Your task to perform on an android device: Search for sushi restaurants on Maps Image 0: 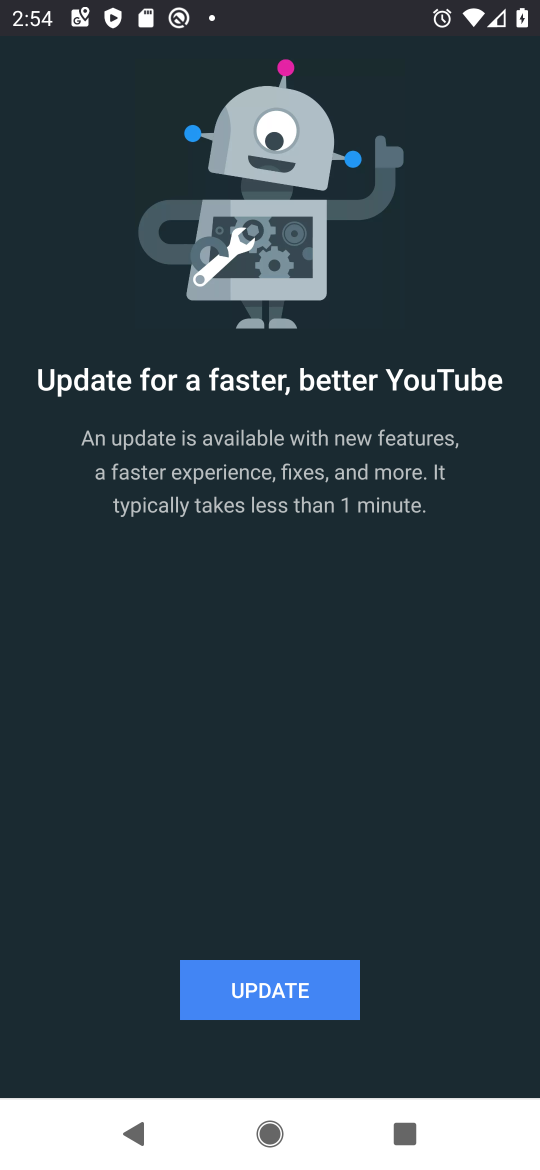
Step 0: press back button
Your task to perform on an android device: Search for sushi restaurants on Maps Image 1: 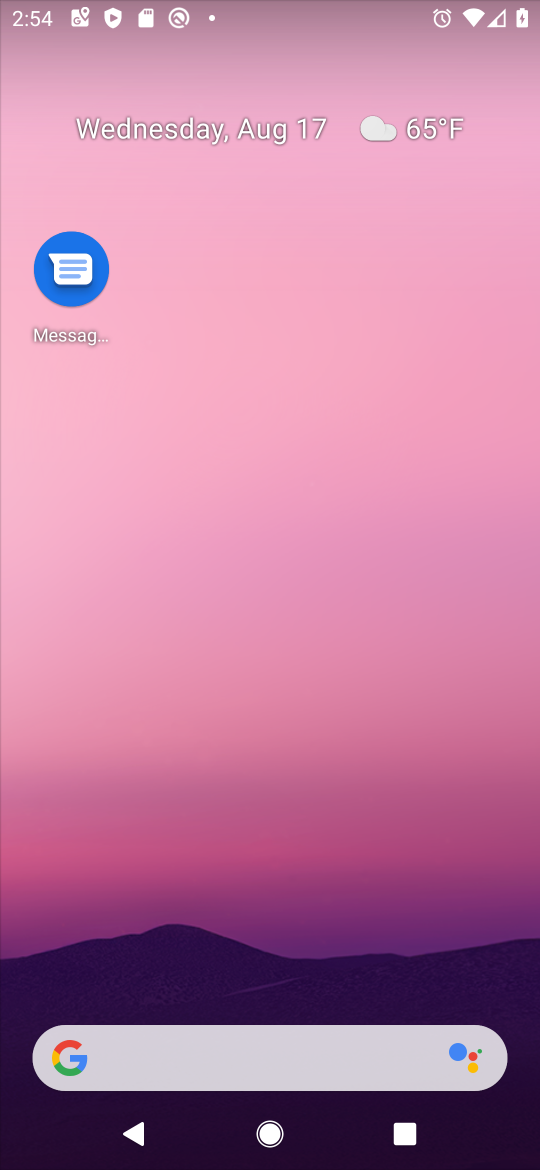
Step 1: drag from (254, 1002) to (193, 43)
Your task to perform on an android device: Search for sushi restaurants on Maps Image 2: 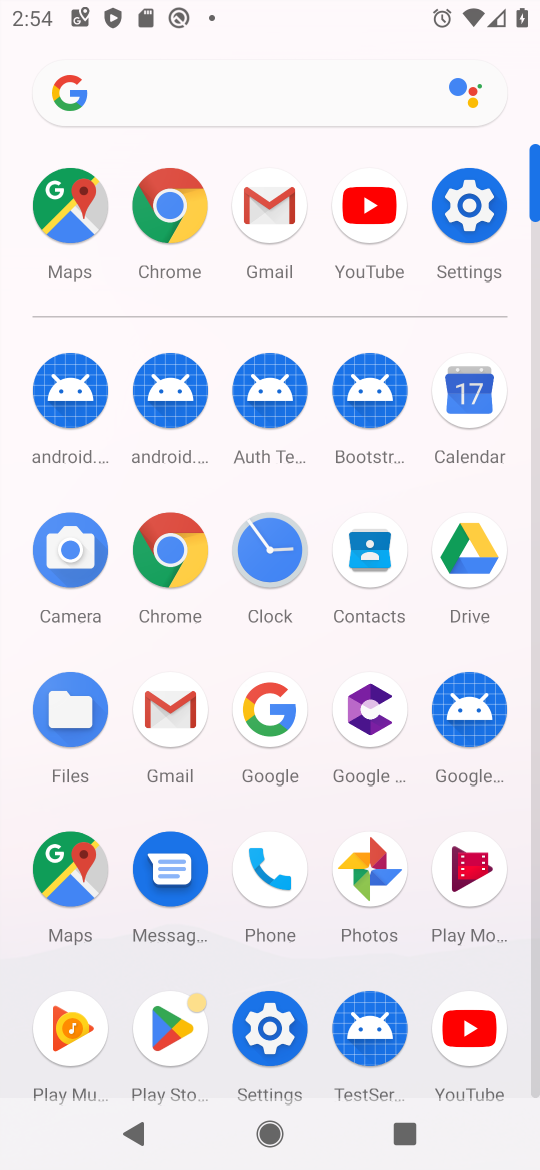
Step 2: click (41, 846)
Your task to perform on an android device: Search for sushi restaurants on Maps Image 3: 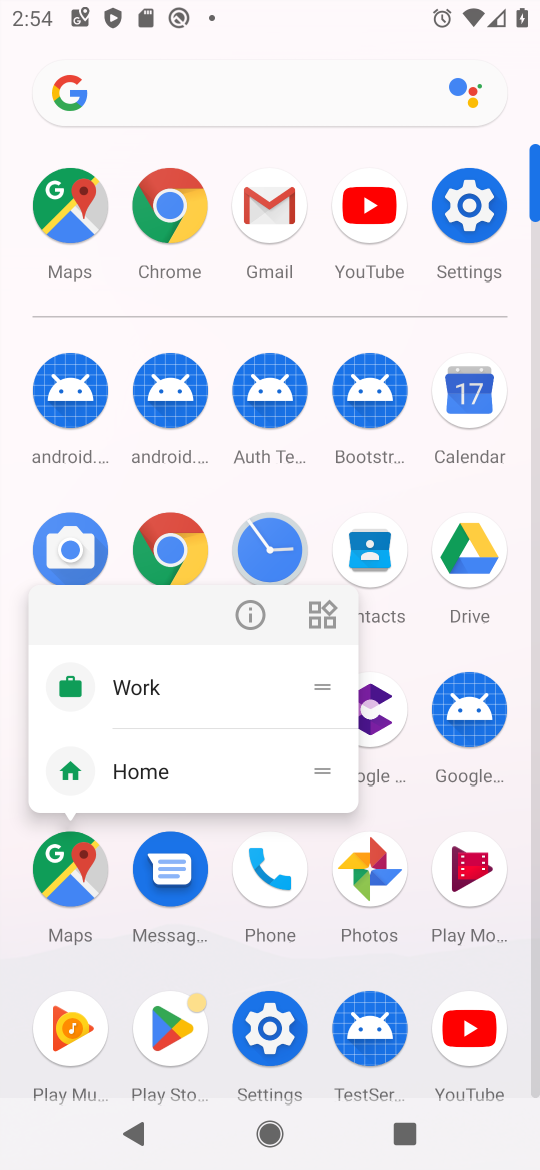
Step 3: click (81, 886)
Your task to perform on an android device: Search for sushi restaurants on Maps Image 4: 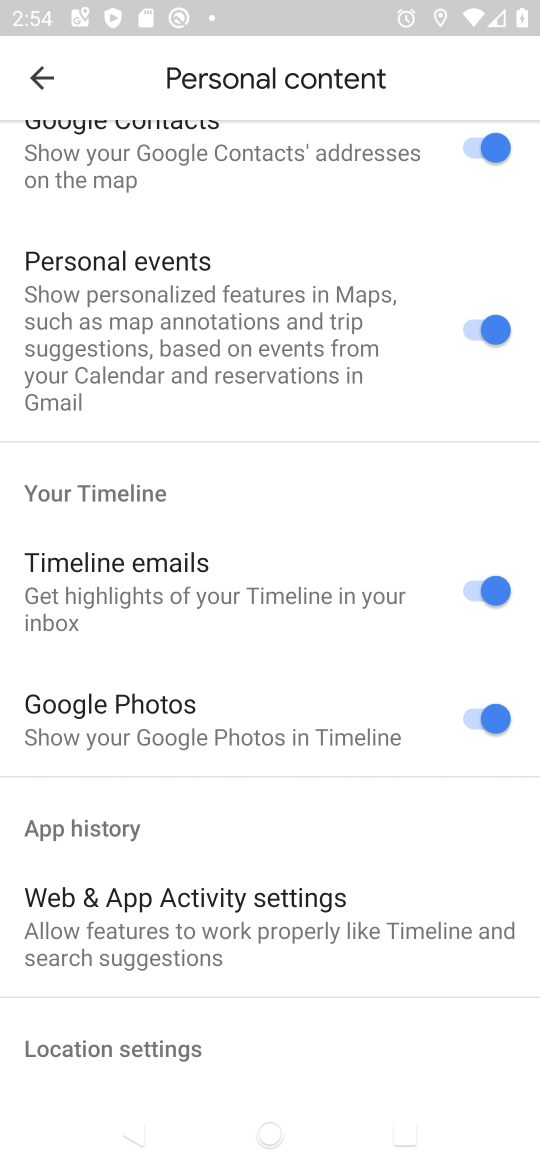
Step 4: click (35, 87)
Your task to perform on an android device: Search for sushi restaurants on Maps Image 5: 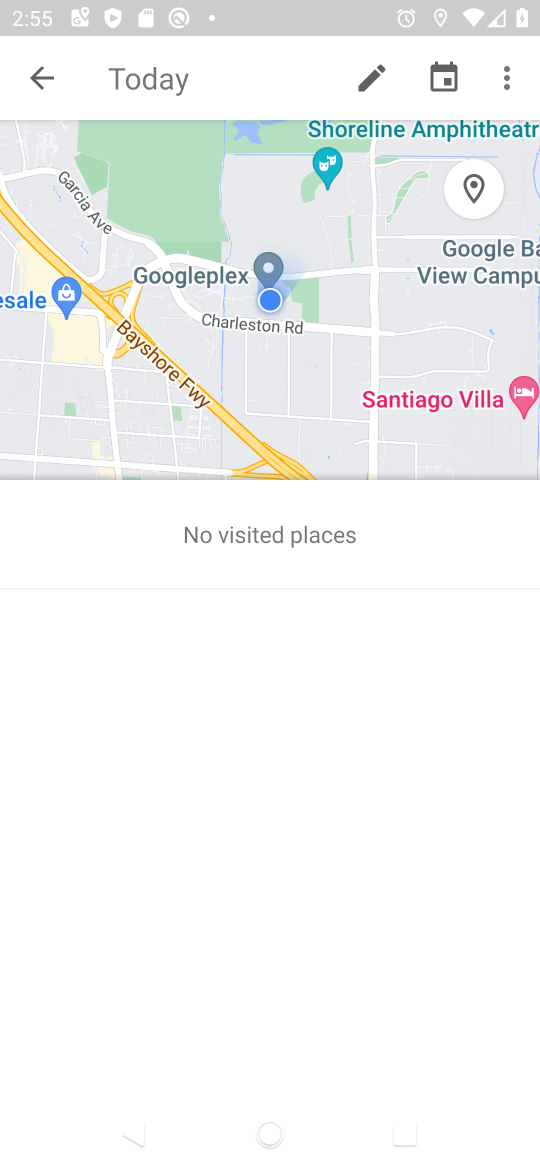
Step 5: click (25, 68)
Your task to perform on an android device: Search for sushi restaurants on Maps Image 6: 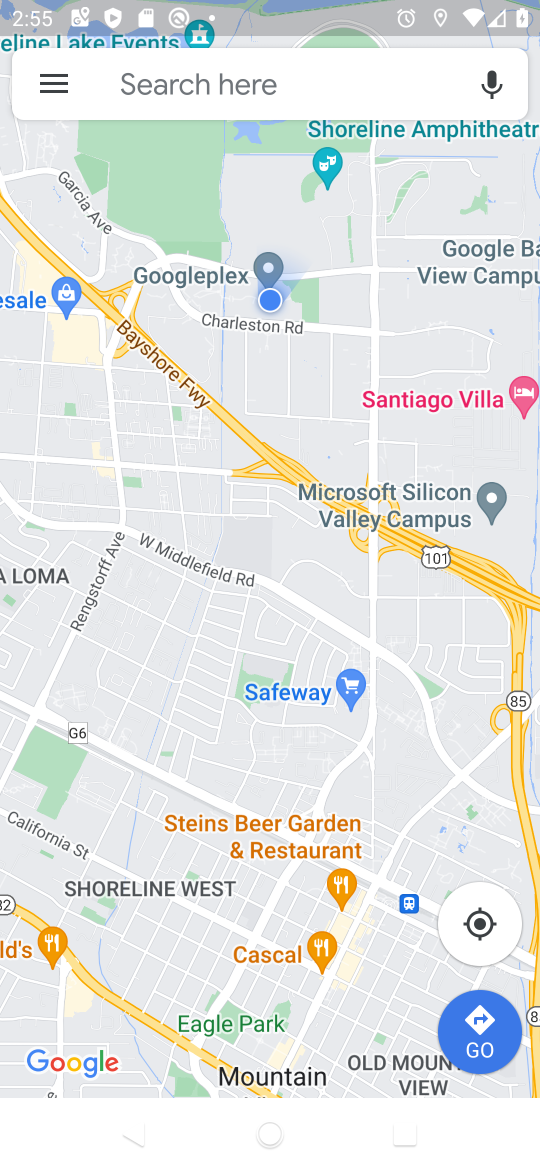
Step 6: click (198, 71)
Your task to perform on an android device: Search for sushi restaurants on Maps Image 7: 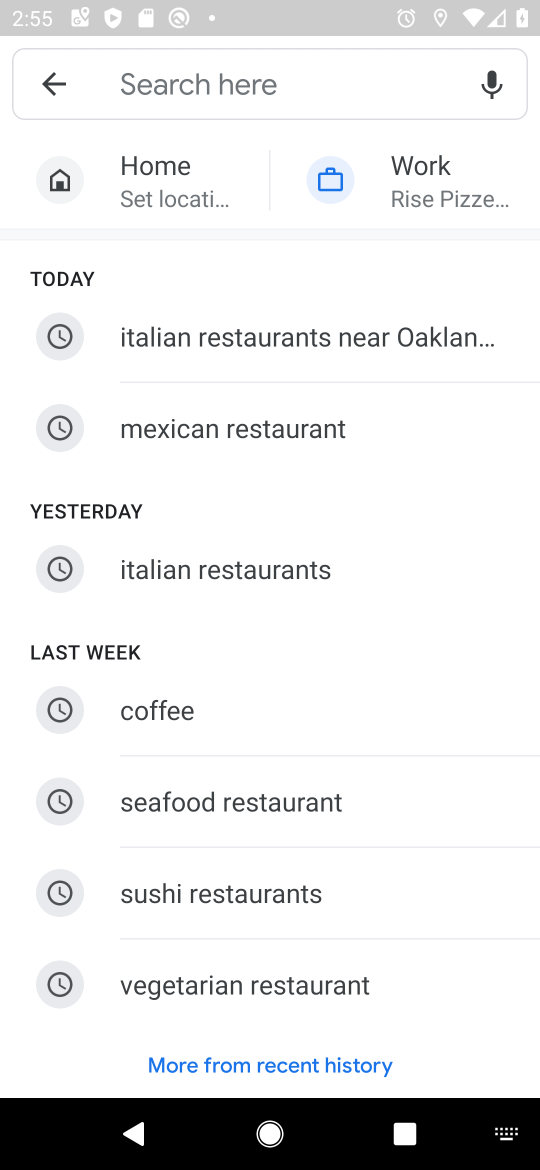
Step 7: click (193, 903)
Your task to perform on an android device: Search for sushi restaurants on Maps Image 8: 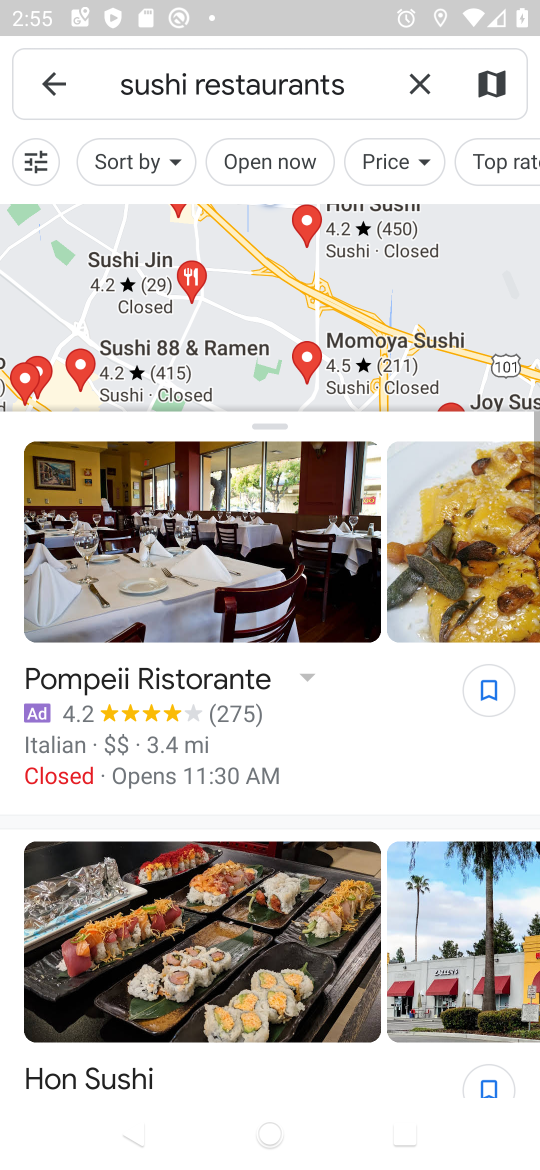
Step 8: task complete